Your task to perform on an android device: Open Youtube and go to "Your channel" Image 0: 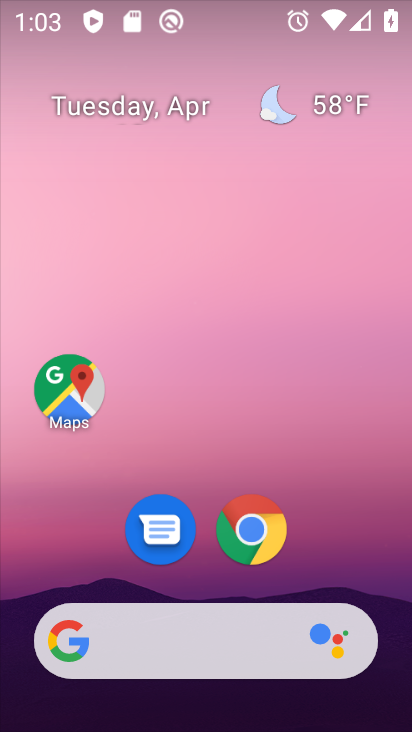
Step 0: drag from (391, 611) to (286, 60)
Your task to perform on an android device: Open Youtube and go to "Your channel" Image 1: 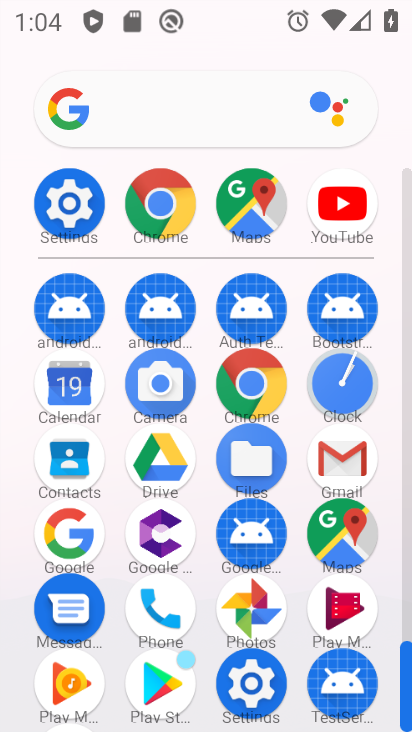
Step 1: click (328, 215)
Your task to perform on an android device: Open Youtube and go to "Your channel" Image 2: 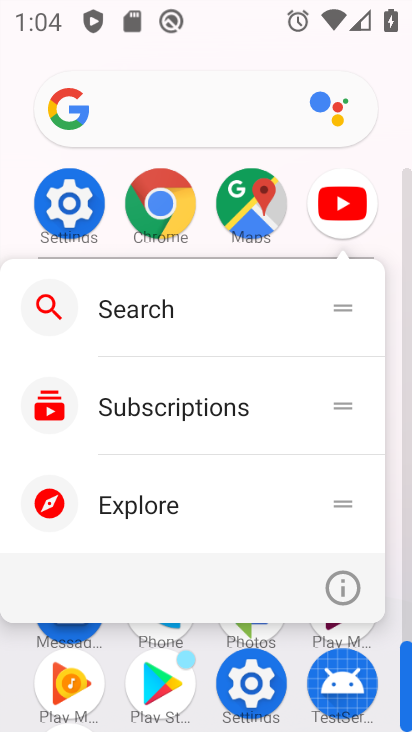
Step 2: click (328, 215)
Your task to perform on an android device: Open Youtube and go to "Your channel" Image 3: 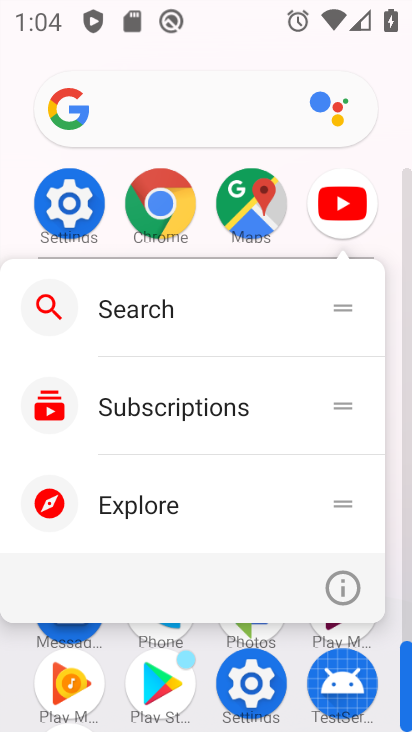
Step 3: click (328, 215)
Your task to perform on an android device: Open Youtube and go to "Your channel" Image 4: 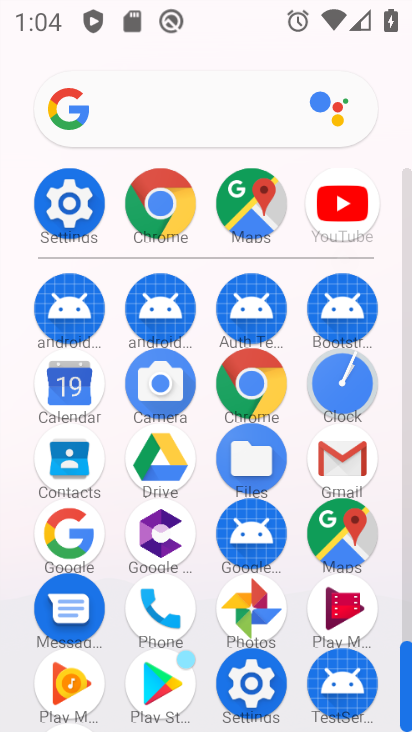
Step 4: click (344, 212)
Your task to perform on an android device: Open Youtube and go to "Your channel" Image 5: 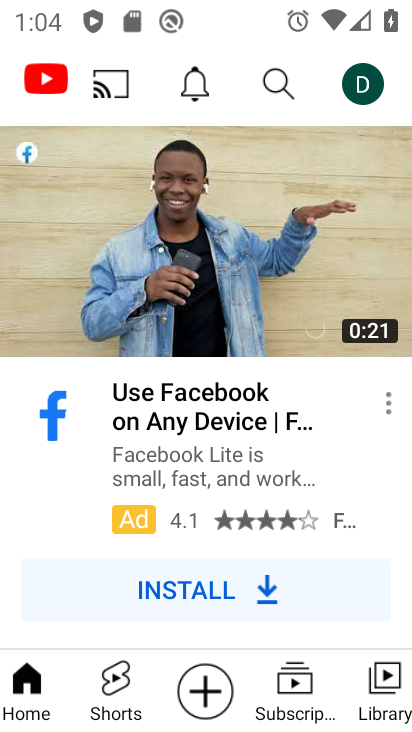
Step 5: click (363, 85)
Your task to perform on an android device: Open Youtube and go to "Your channel" Image 6: 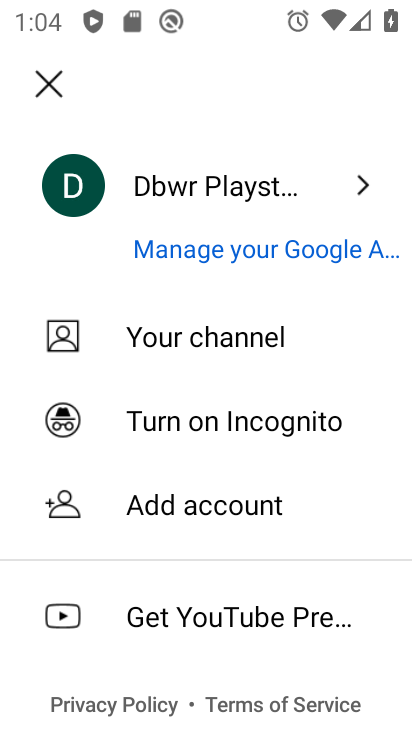
Step 6: click (214, 332)
Your task to perform on an android device: Open Youtube and go to "Your channel" Image 7: 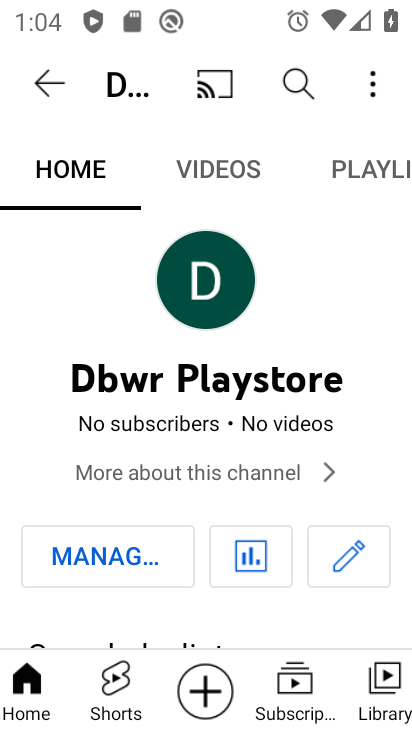
Step 7: task complete